Your task to perform on an android device: allow cookies in the chrome app Image 0: 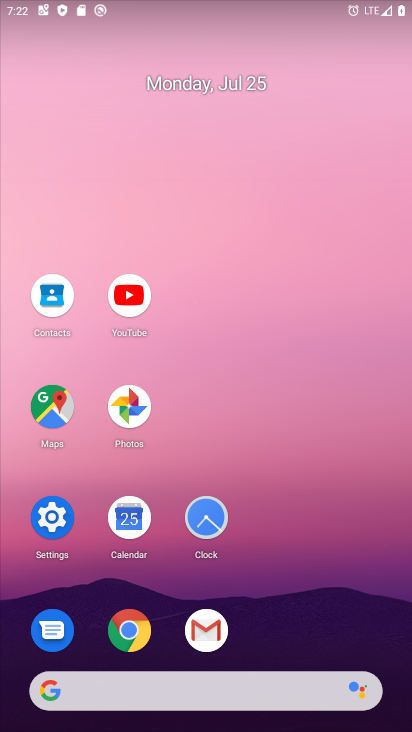
Step 0: click (122, 640)
Your task to perform on an android device: allow cookies in the chrome app Image 1: 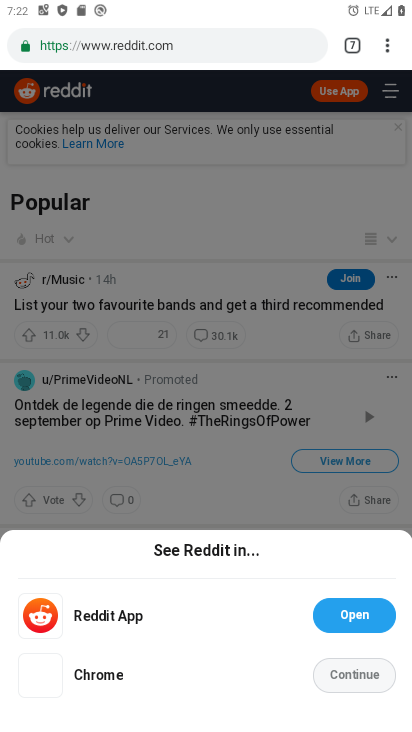
Step 1: click (388, 41)
Your task to perform on an android device: allow cookies in the chrome app Image 2: 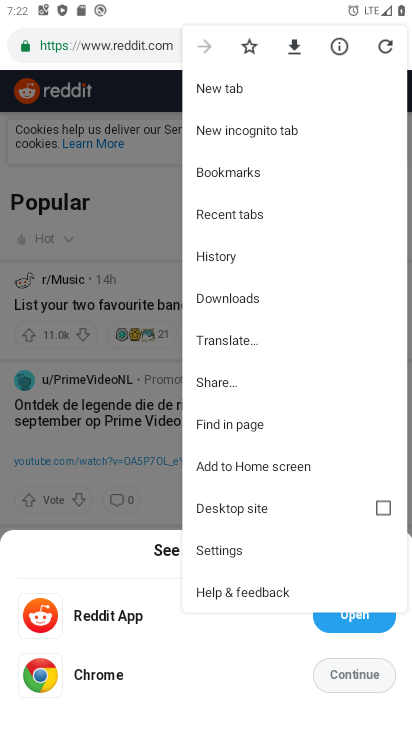
Step 2: click (223, 547)
Your task to perform on an android device: allow cookies in the chrome app Image 3: 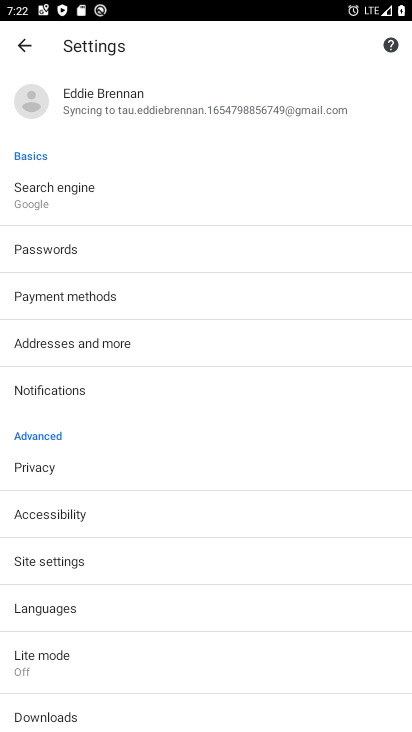
Step 3: click (47, 566)
Your task to perform on an android device: allow cookies in the chrome app Image 4: 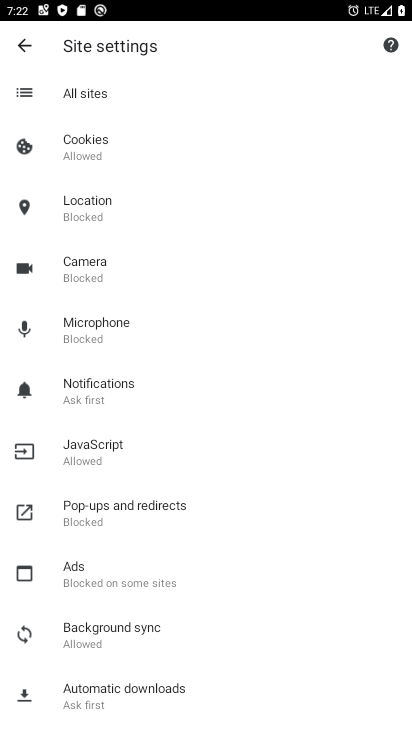
Step 4: click (100, 133)
Your task to perform on an android device: allow cookies in the chrome app Image 5: 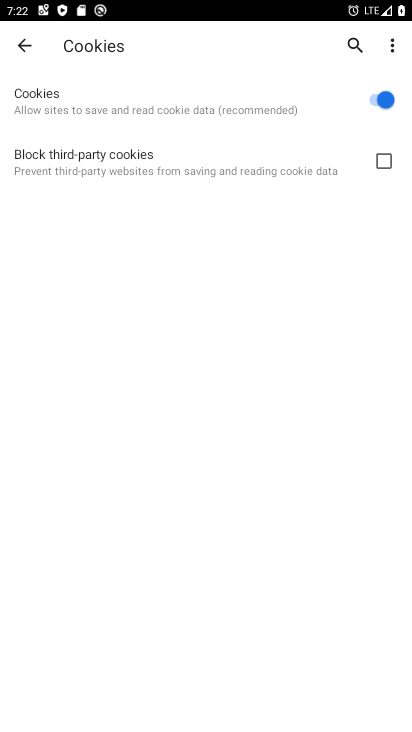
Step 5: task complete